Your task to perform on an android device: Open network settings Image 0: 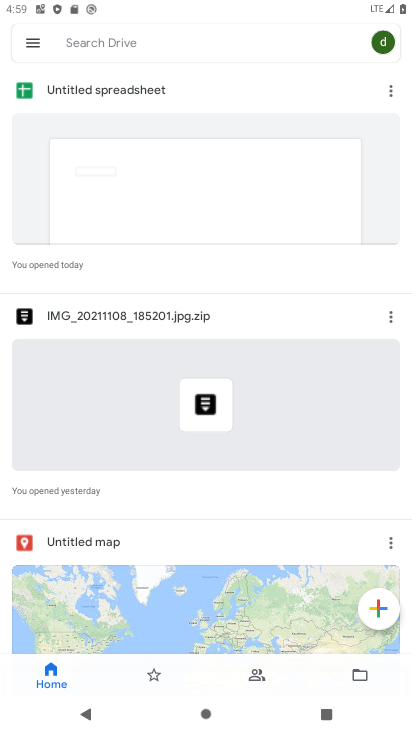
Step 0: press back button
Your task to perform on an android device: Open network settings Image 1: 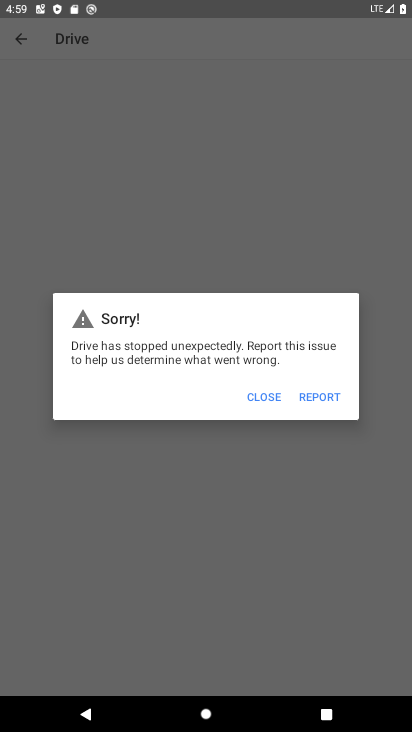
Step 1: press back button
Your task to perform on an android device: Open network settings Image 2: 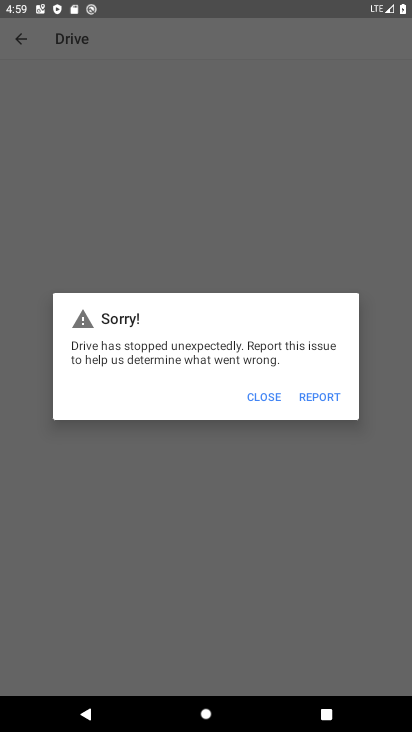
Step 2: press home button
Your task to perform on an android device: Open network settings Image 3: 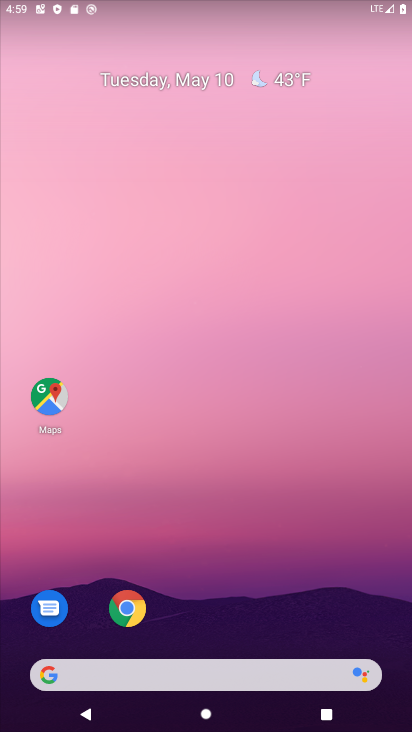
Step 3: drag from (254, 577) to (353, 12)
Your task to perform on an android device: Open network settings Image 4: 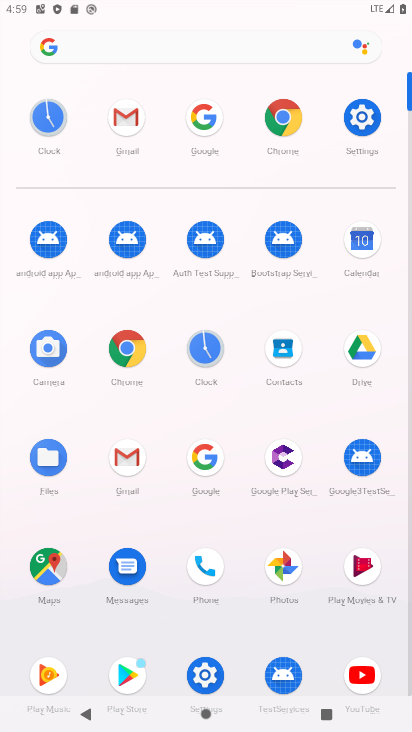
Step 4: click (368, 122)
Your task to perform on an android device: Open network settings Image 5: 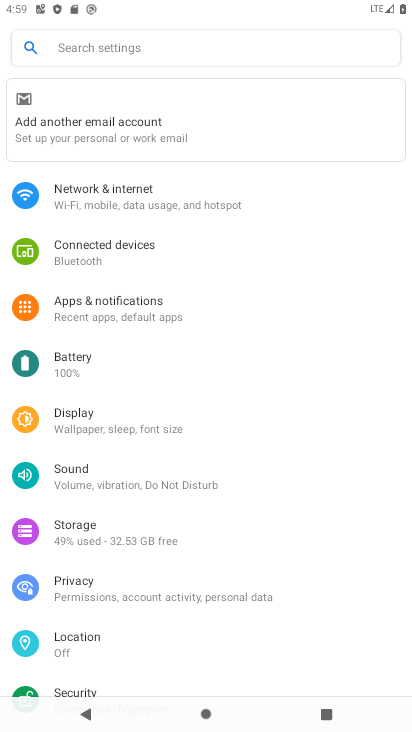
Step 5: click (96, 200)
Your task to perform on an android device: Open network settings Image 6: 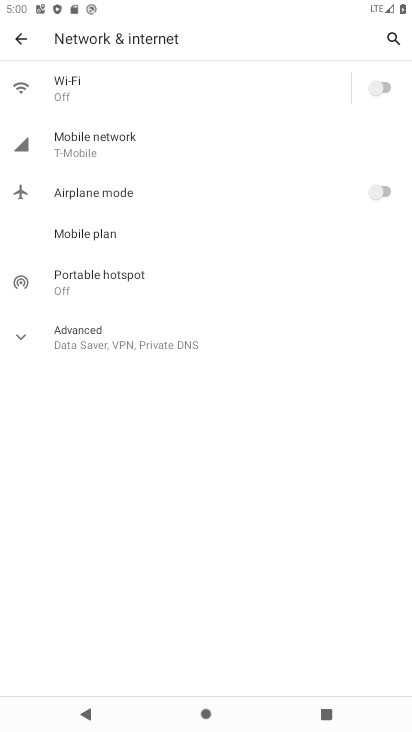
Step 6: task complete